Your task to perform on an android device: open wifi settings Image 0: 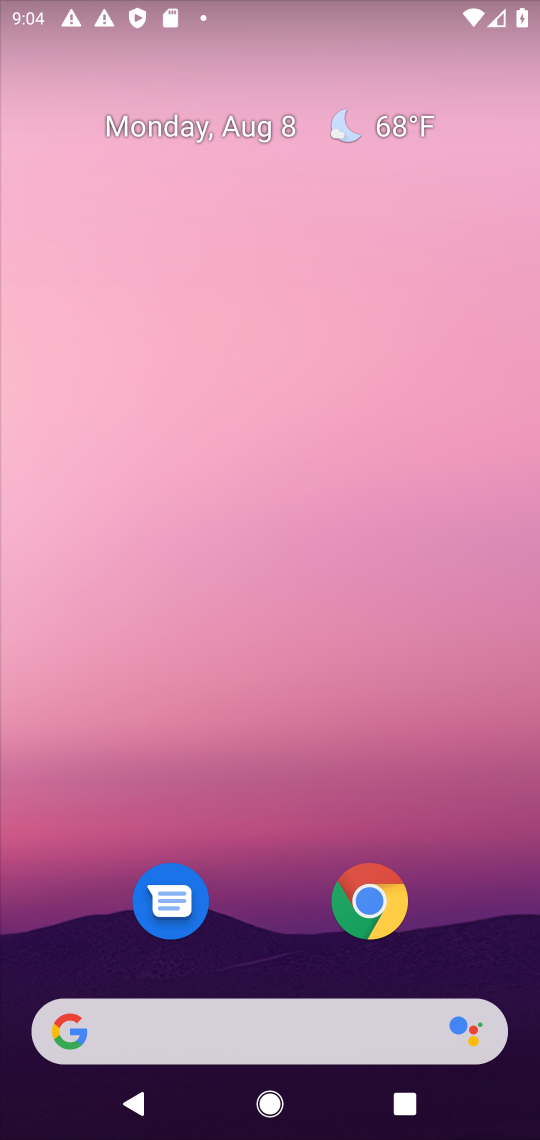
Step 0: click (251, 247)
Your task to perform on an android device: open wifi settings Image 1: 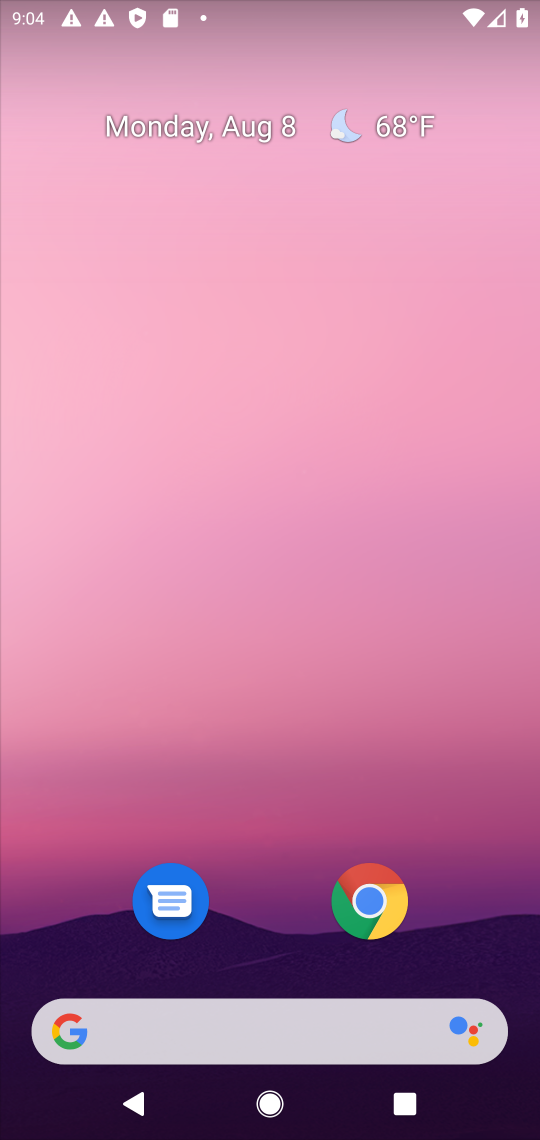
Step 1: drag from (256, 751) to (256, 36)
Your task to perform on an android device: open wifi settings Image 2: 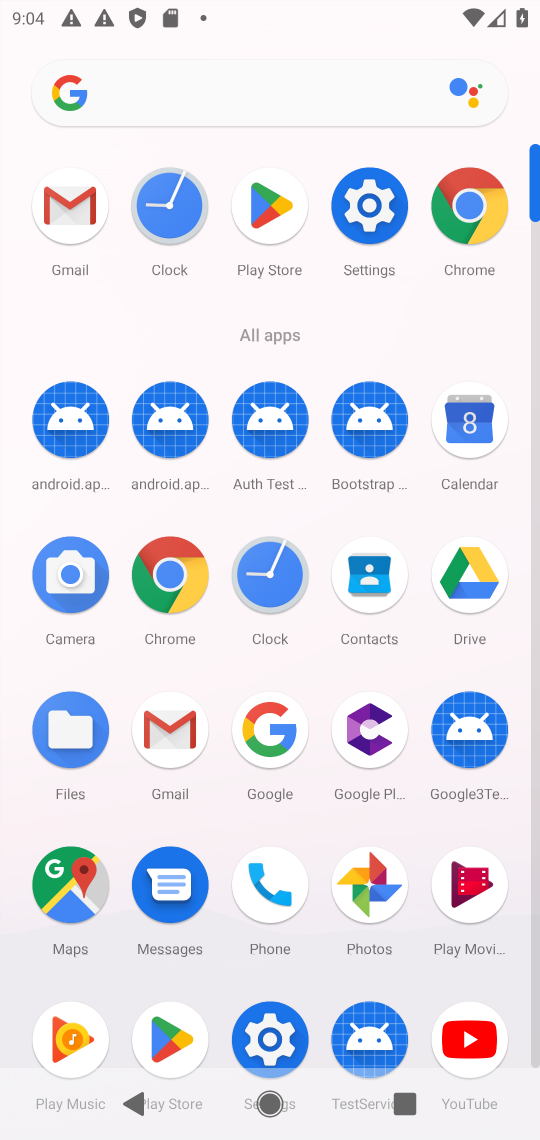
Step 2: click (367, 203)
Your task to perform on an android device: open wifi settings Image 3: 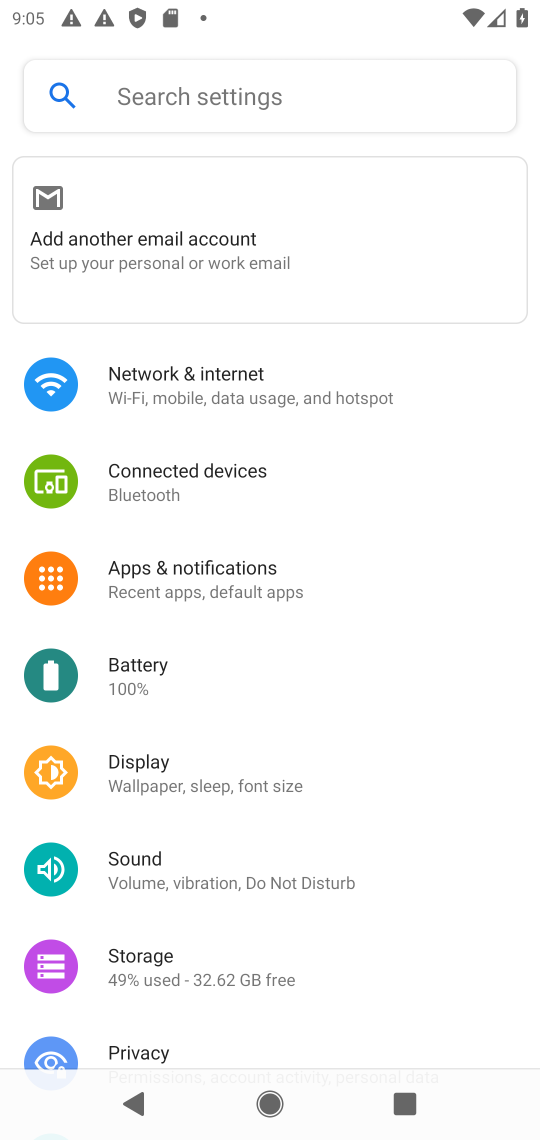
Step 3: click (265, 373)
Your task to perform on an android device: open wifi settings Image 4: 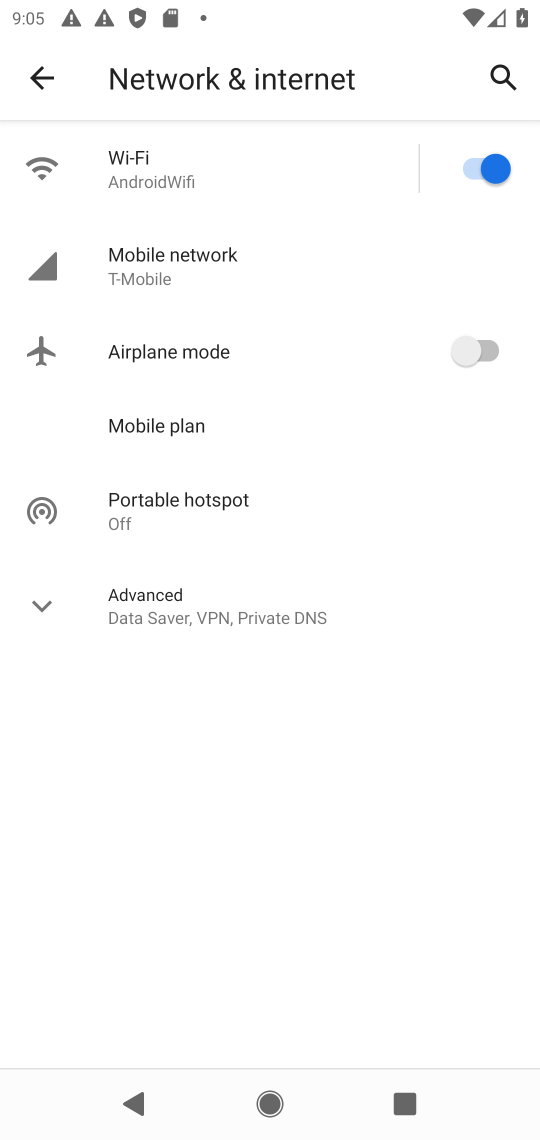
Step 4: click (159, 193)
Your task to perform on an android device: open wifi settings Image 5: 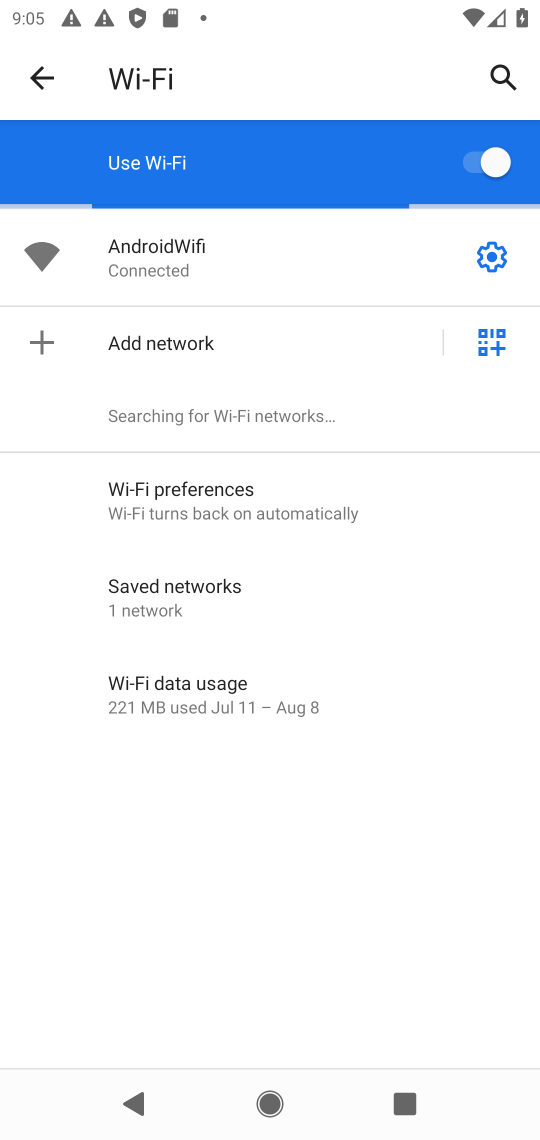
Step 5: task complete